Your task to perform on an android device: remove spam from my inbox in the gmail app Image 0: 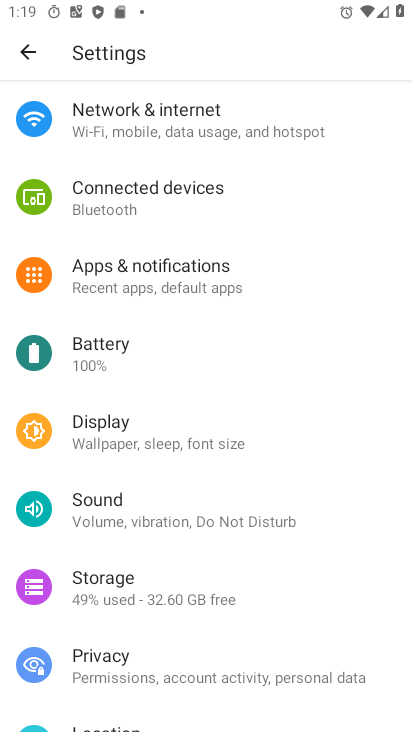
Step 0: press home button
Your task to perform on an android device: remove spam from my inbox in the gmail app Image 1: 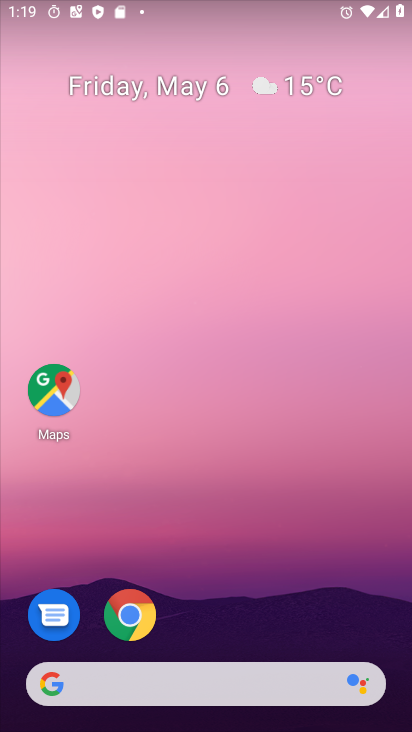
Step 1: drag from (206, 563) to (230, 8)
Your task to perform on an android device: remove spam from my inbox in the gmail app Image 2: 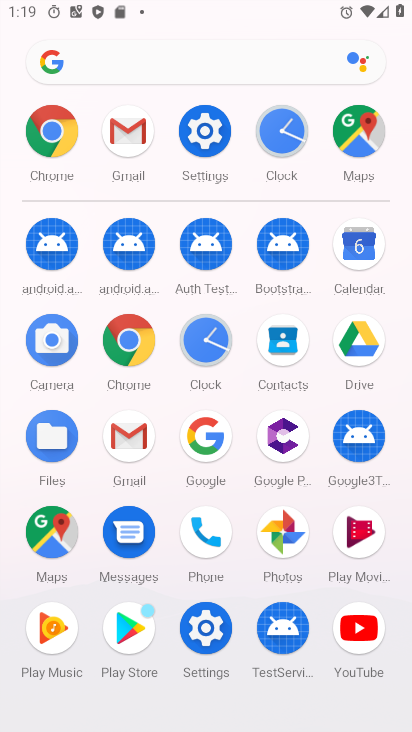
Step 2: click (137, 125)
Your task to perform on an android device: remove spam from my inbox in the gmail app Image 3: 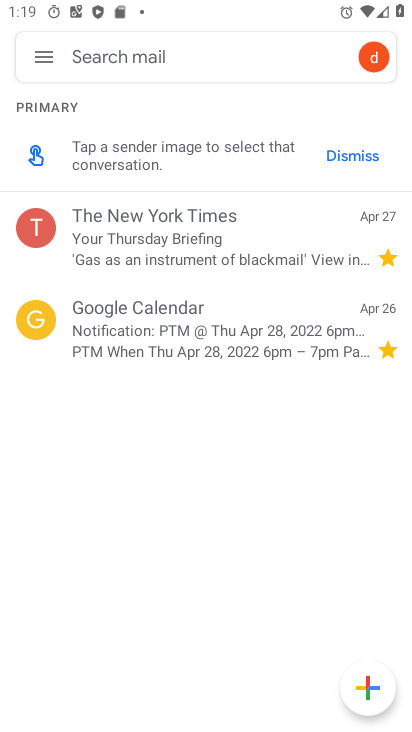
Step 3: click (42, 56)
Your task to perform on an android device: remove spam from my inbox in the gmail app Image 4: 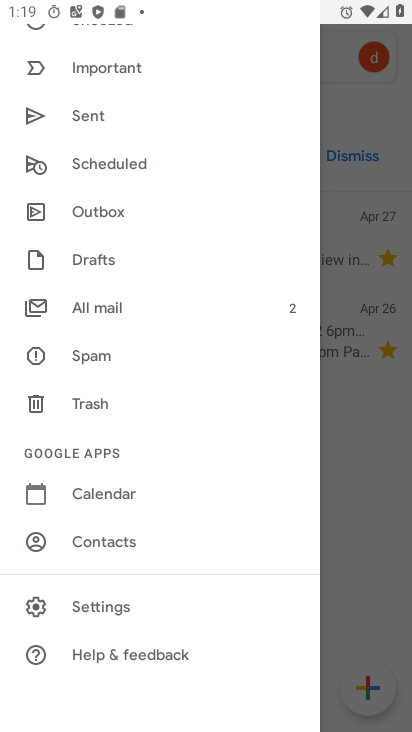
Step 4: click (87, 349)
Your task to perform on an android device: remove spam from my inbox in the gmail app Image 5: 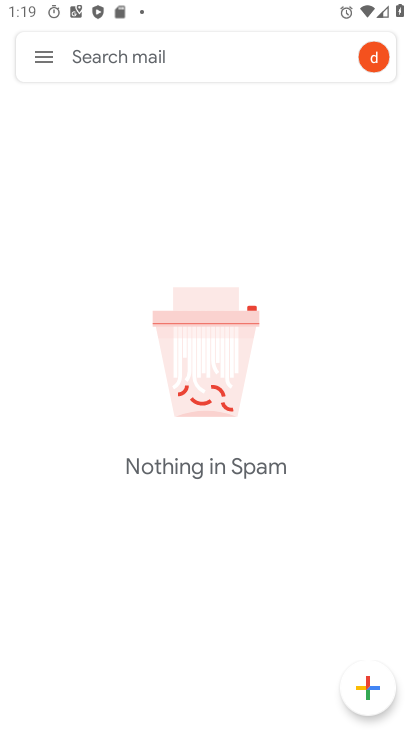
Step 5: task complete